Your task to perform on an android device: Open Google Image 0: 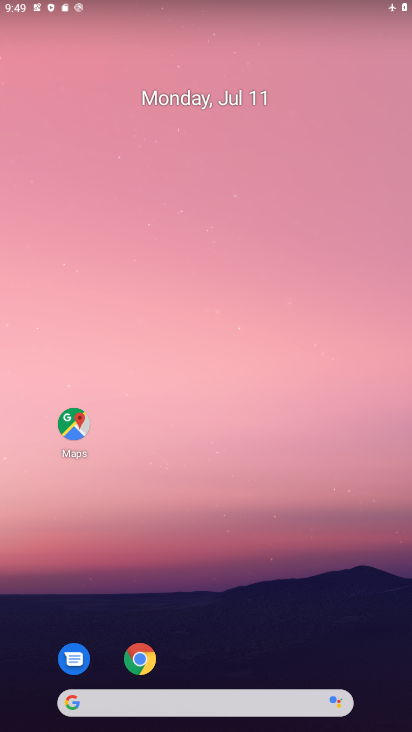
Step 0: drag from (210, 701) to (234, 85)
Your task to perform on an android device: Open Google Image 1: 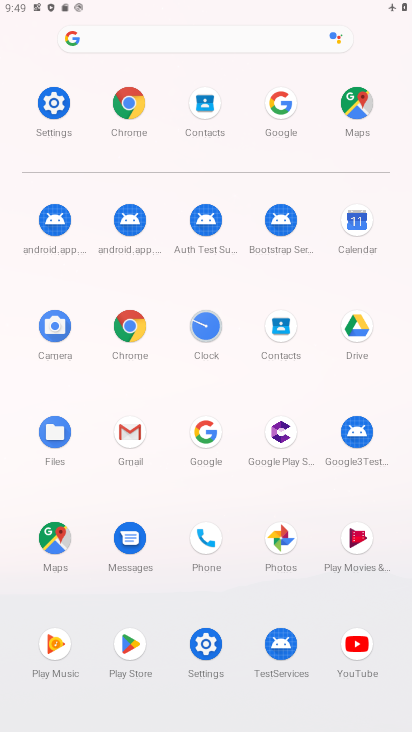
Step 1: click (203, 433)
Your task to perform on an android device: Open Google Image 2: 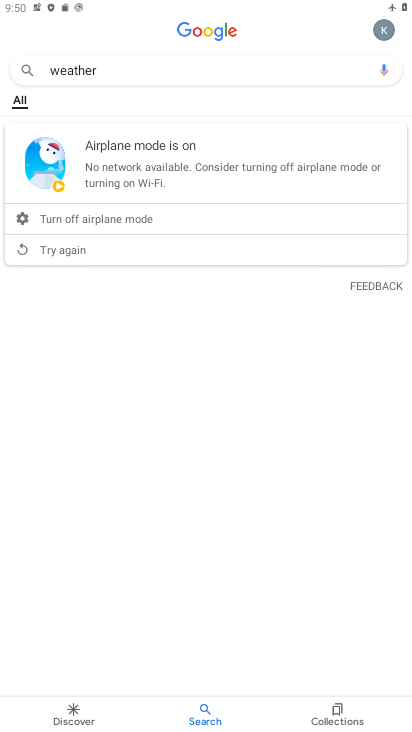
Step 2: task complete